Your task to perform on an android device: find photos in the google photos app Image 0: 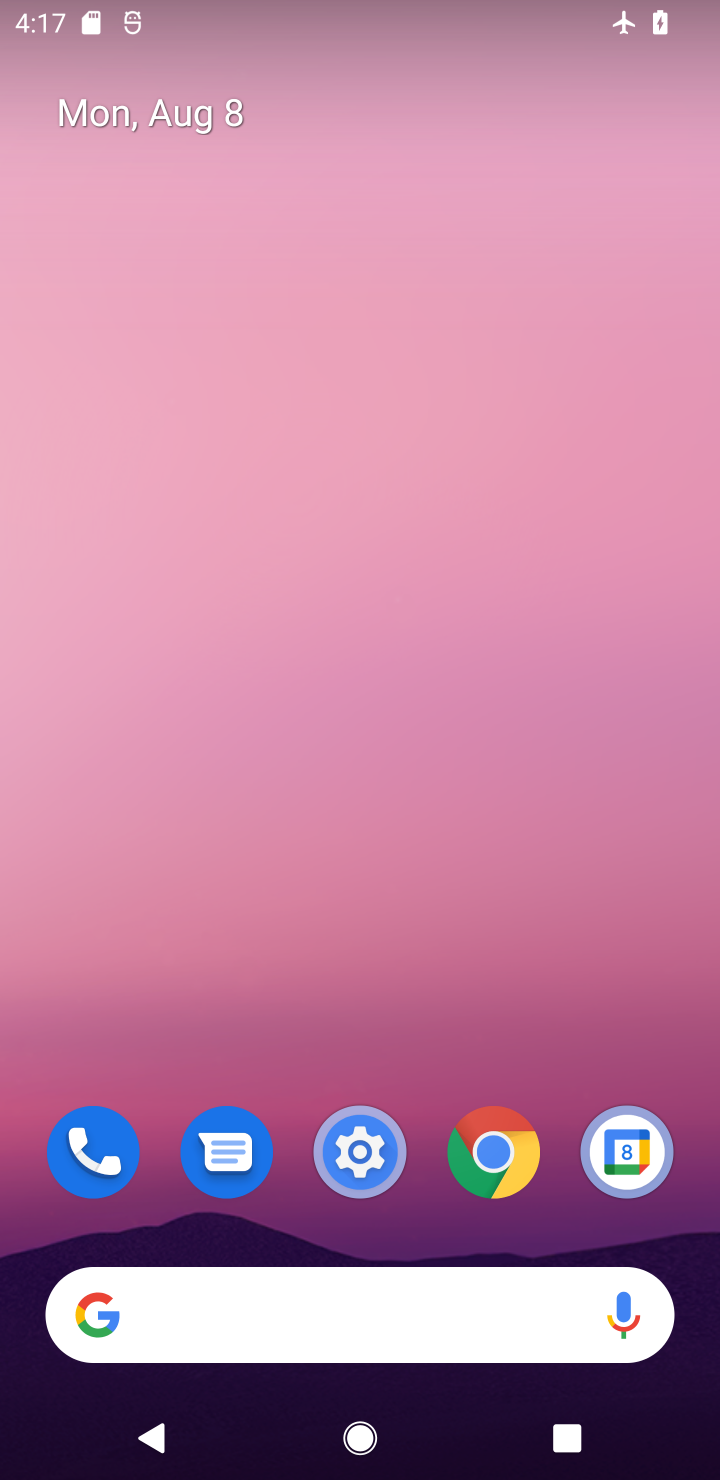
Step 0: drag from (333, 1102) to (466, 16)
Your task to perform on an android device: find photos in the google photos app Image 1: 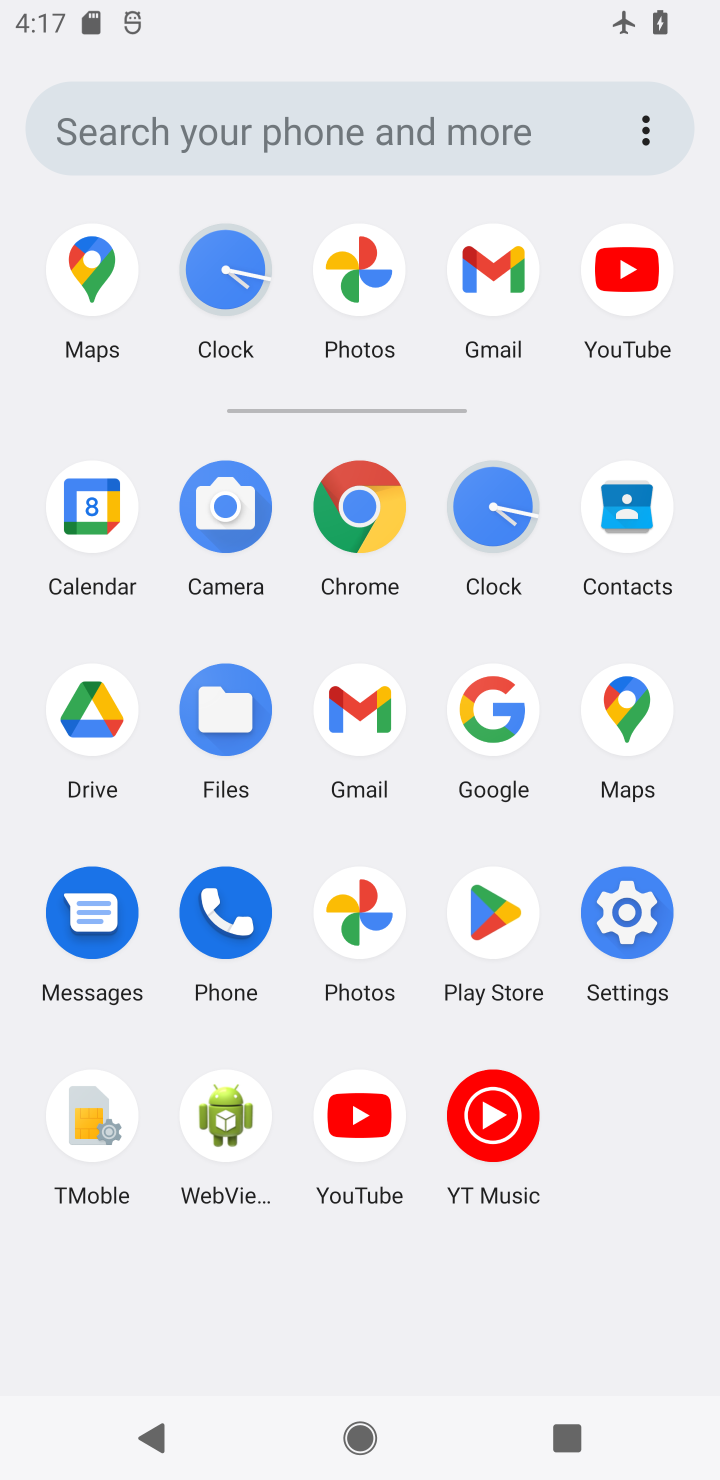
Step 1: click (364, 936)
Your task to perform on an android device: find photos in the google photos app Image 2: 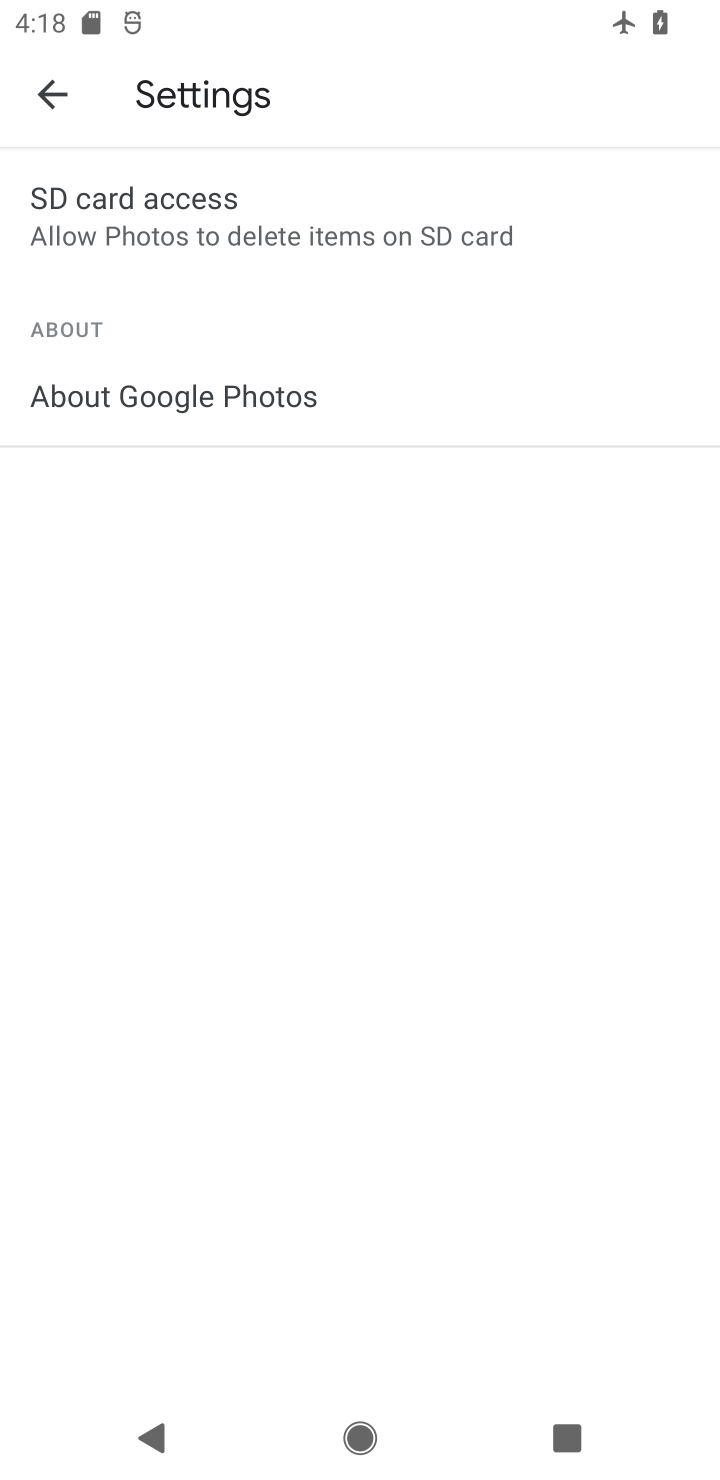
Step 2: press back button
Your task to perform on an android device: find photos in the google photos app Image 3: 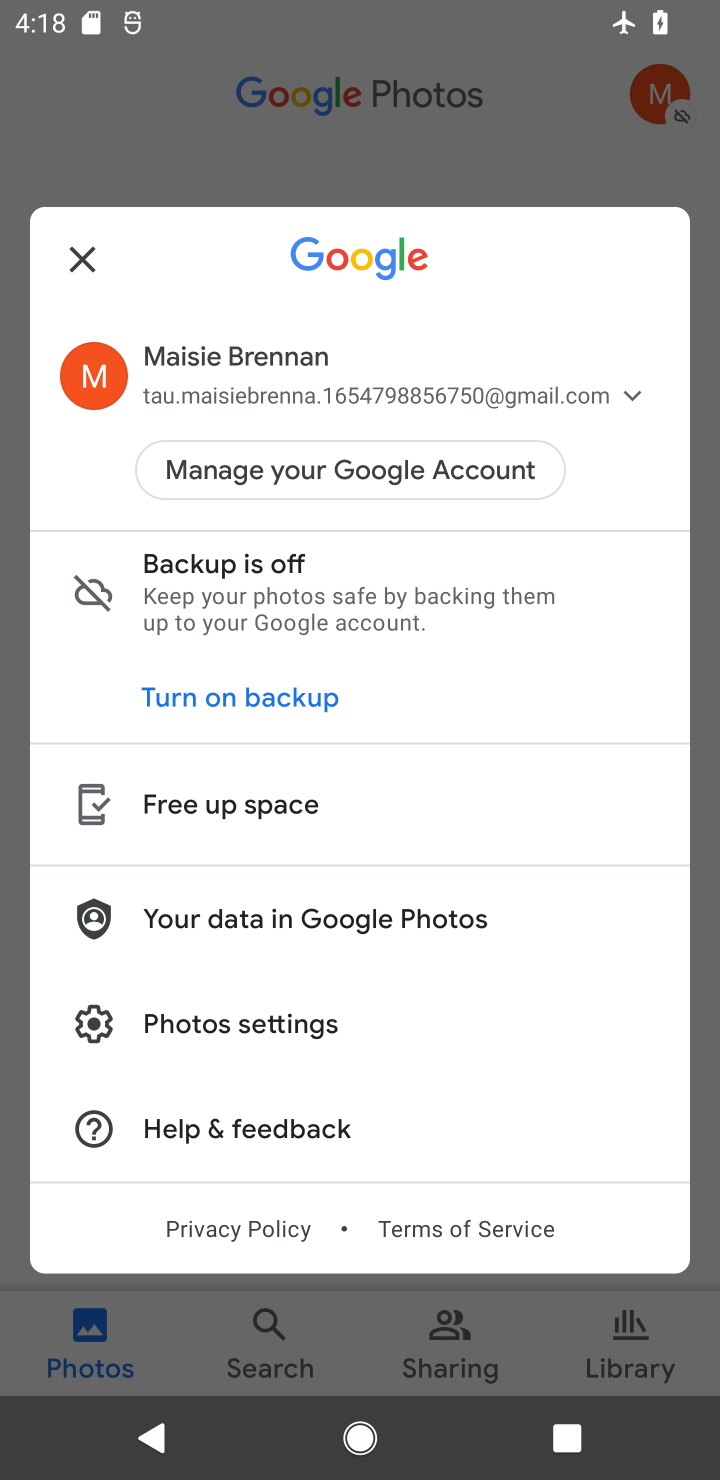
Step 3: press back button
Your task to perform on an android device: find photos in the google photos app Image 4: 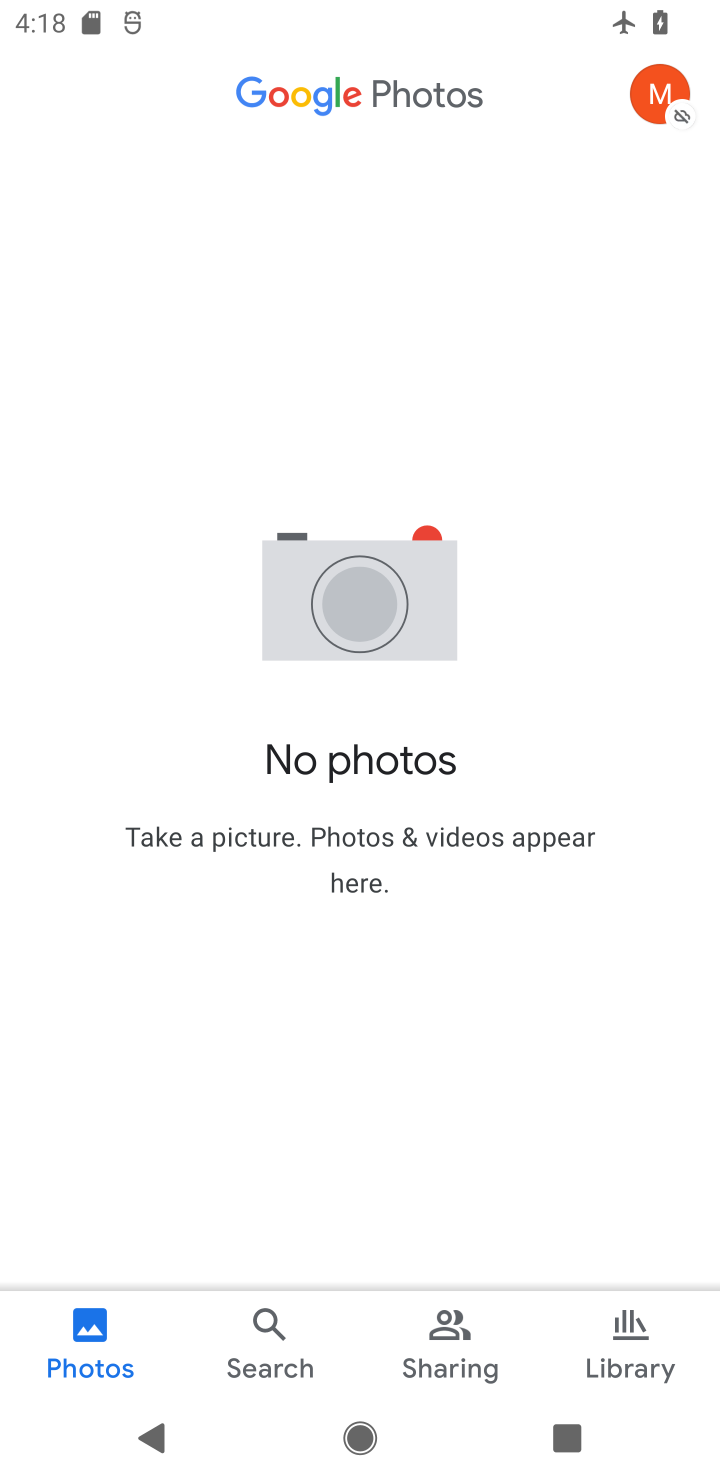
Step 4: press home button
Your task to perform on an android device: find photos in the google photos app Image 5: 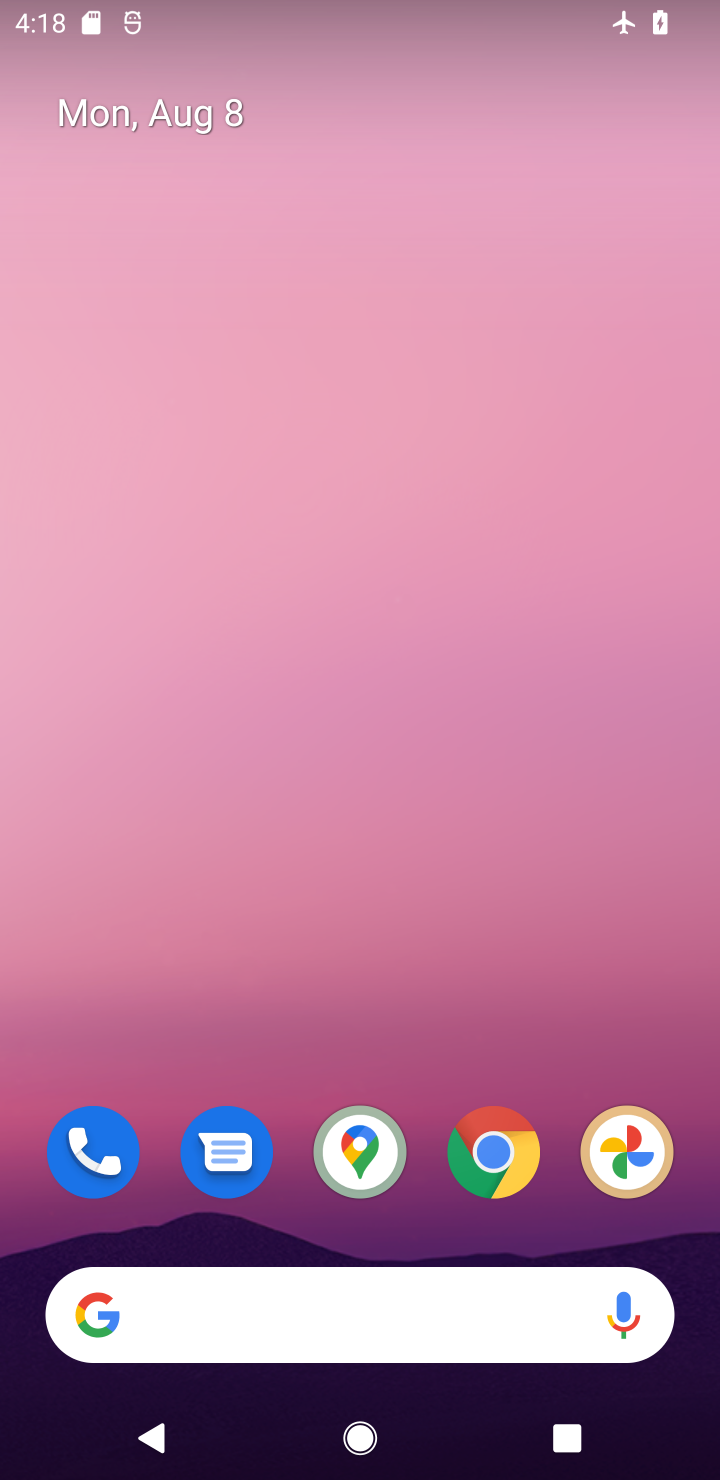
Step 5: drag from (334, 763) to (494, 6)
Your task to perform on an android device: find photos in the google photos app Image 6: 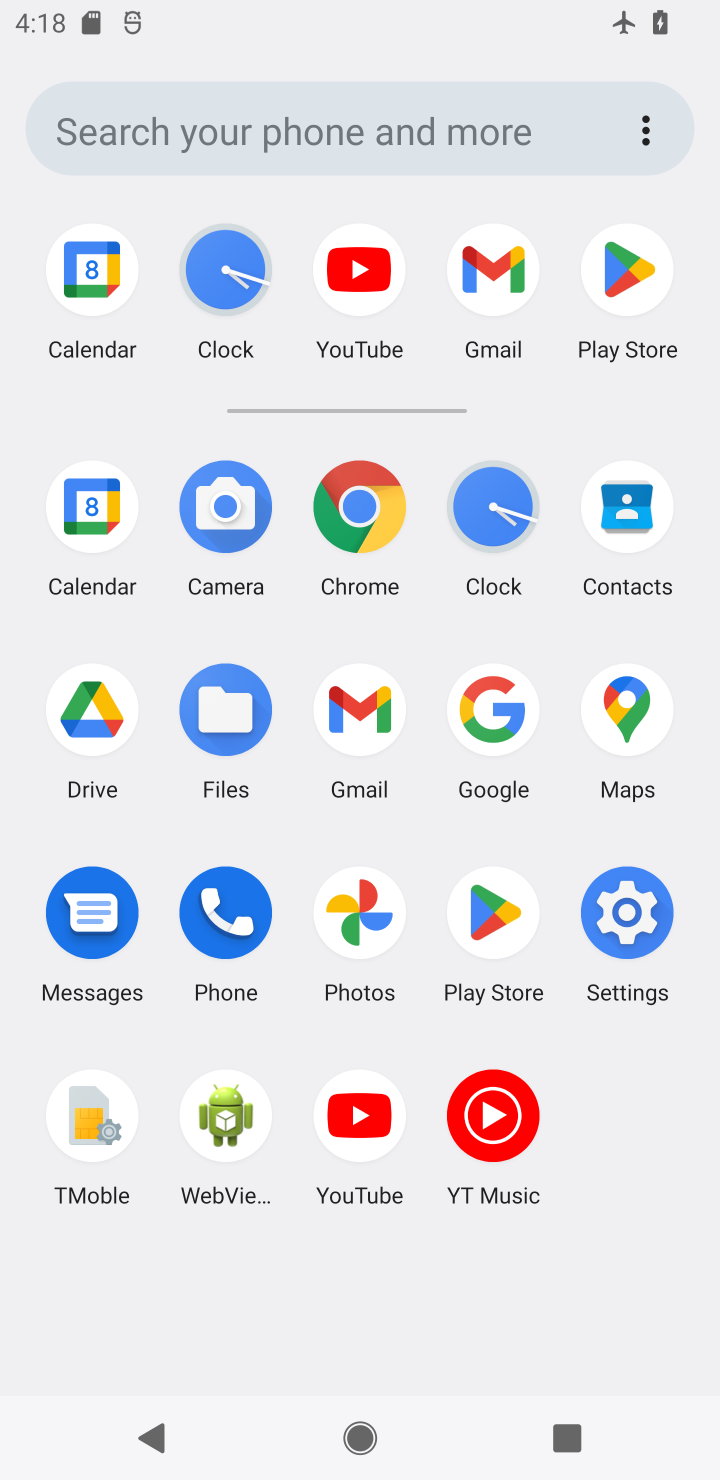
Step 6: click (358, 905)
Your task to perform on an android device: find photos in the google photos app Image 7: 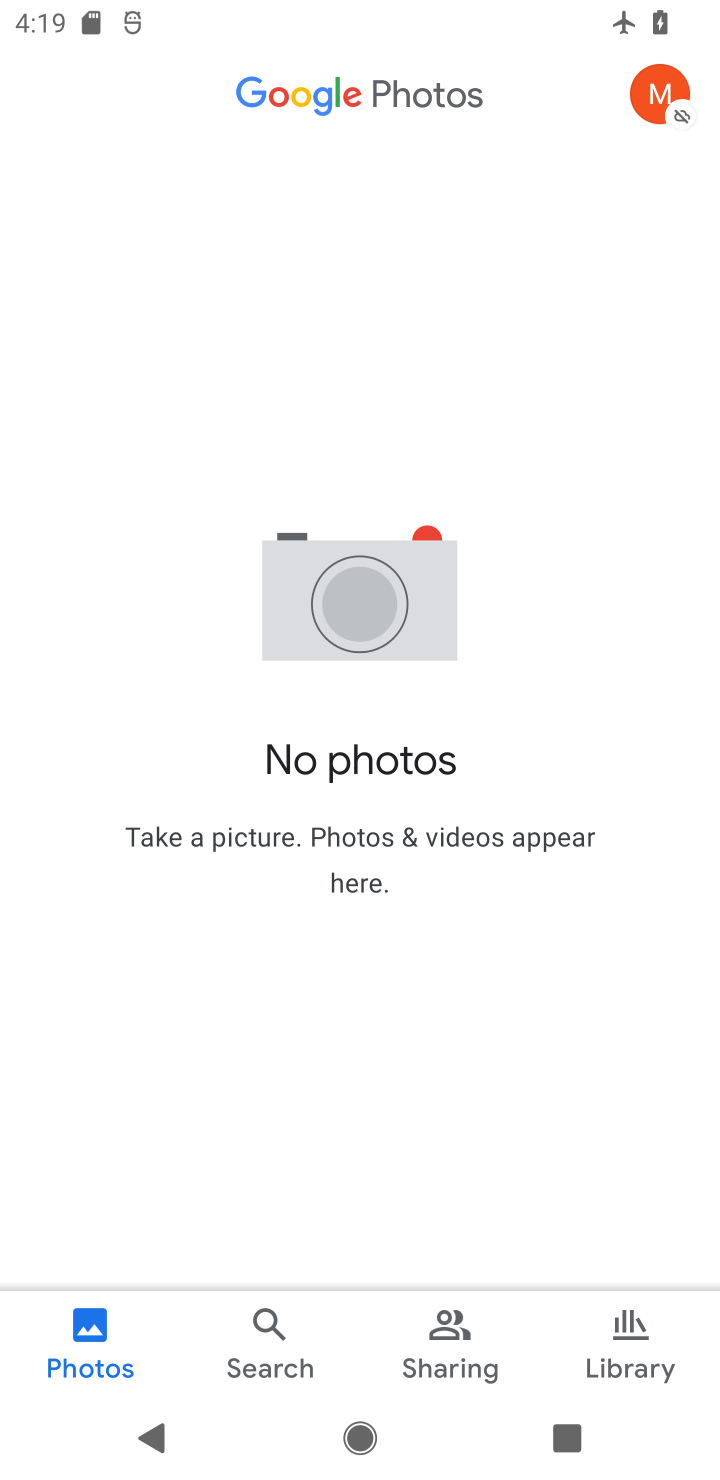
Step 7: click (87, 1307)
Your task to perform on an android device: find photos in the google photos app Image 8: 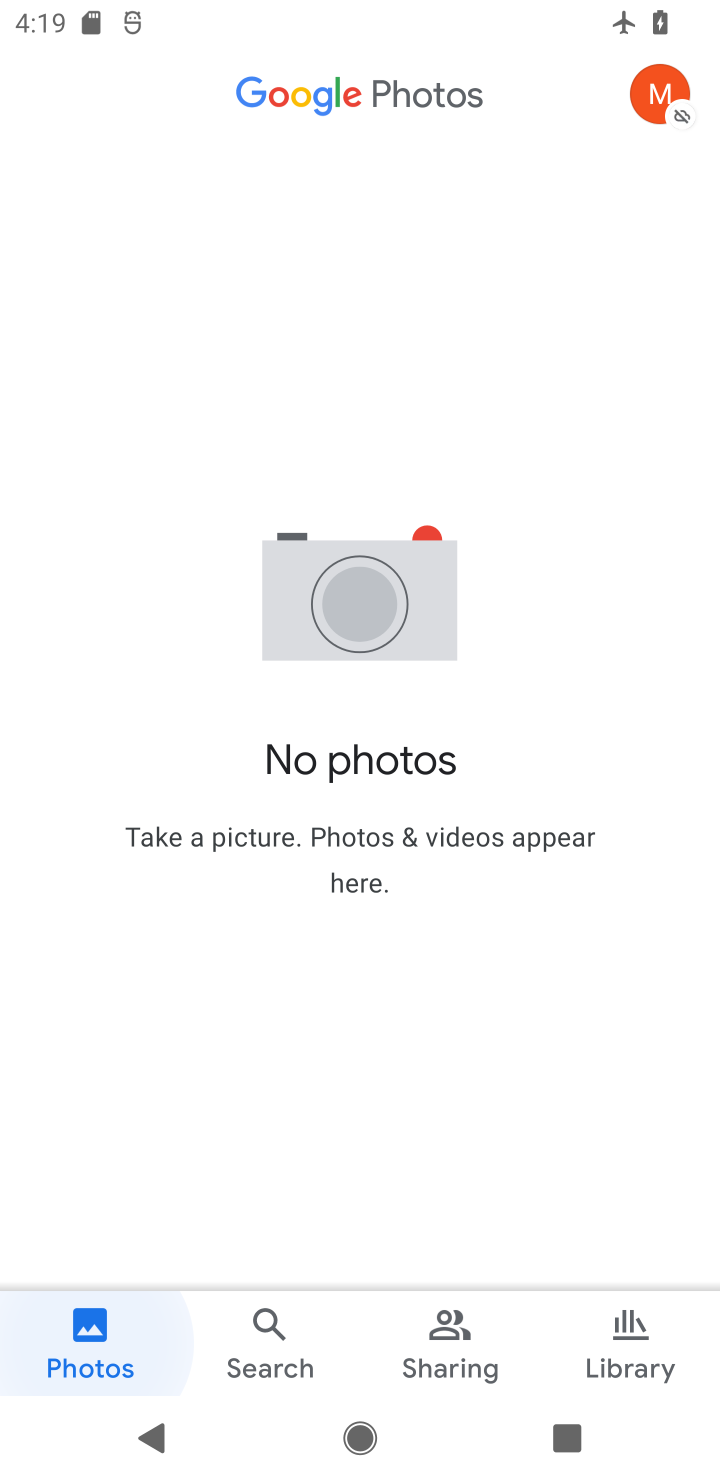
Step 8: task complete